Your task to perform on an android device: stop showing notifications on the lock screen Image 0: 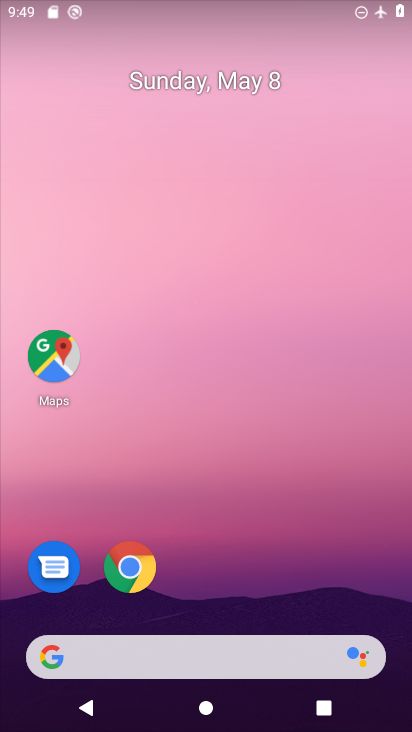
Step 0: drag from (168, 625) to (253, 81)
Your task to perform on an android device: stop showing notifications on the lock screen Image 1: 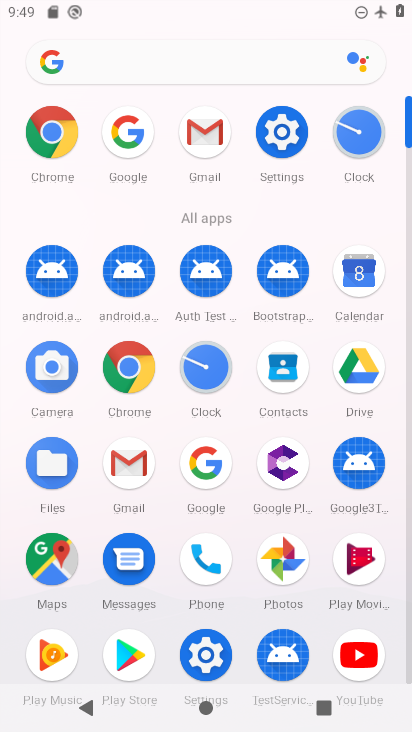
Step 1: click (210, 658)
Your task to perform on an android device: stop showing notifications on the lock screen Image 2: 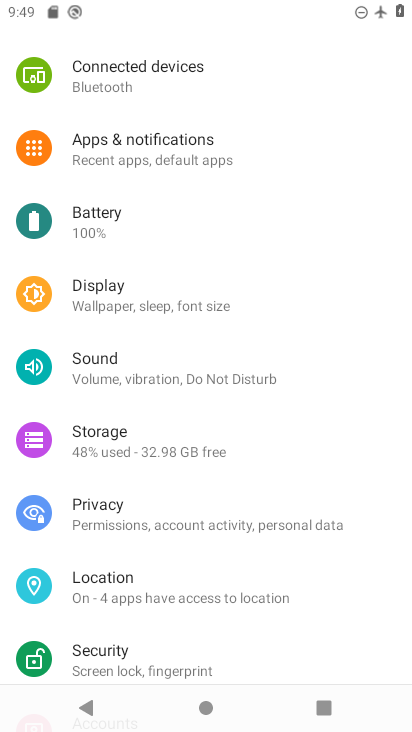
Step 2: click (121, 520)
Your task to perform on an android device: stop showing notifications on the lock screen Image 3: 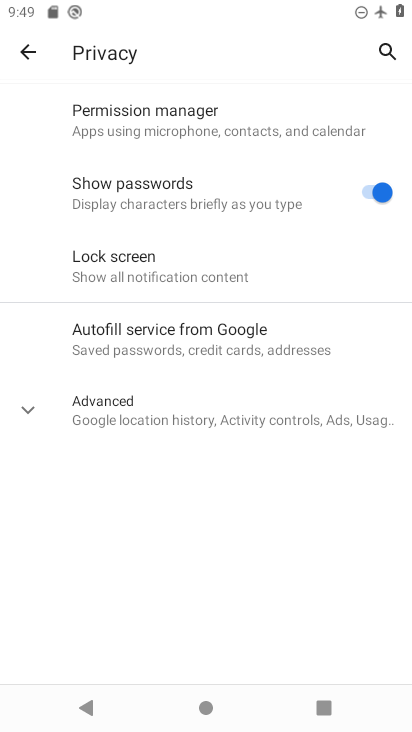
Step 3: click (128, 273)
Your task to perform on an android device: stop showing notifications on the lock screen Image 4: 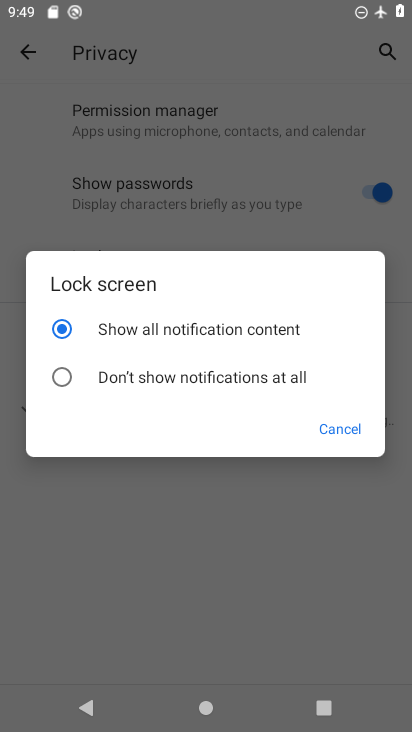
Step 4: click (63, 381)
Your task to perform on an android device: stop showing notifications on the lock screen Image 5: 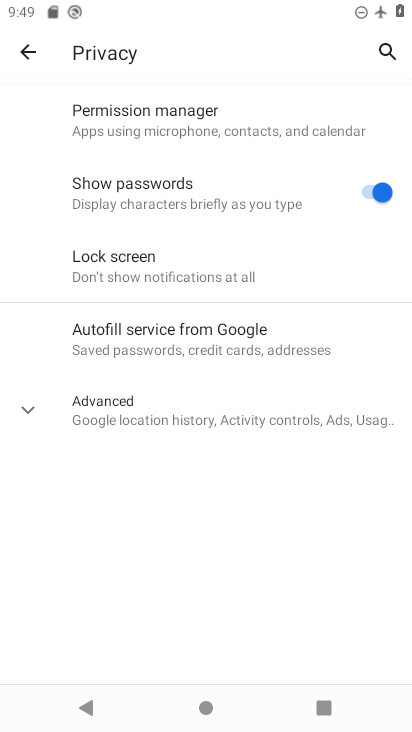
Step 5: task complete